Your task to perform on an android device: Open settings Image 0: 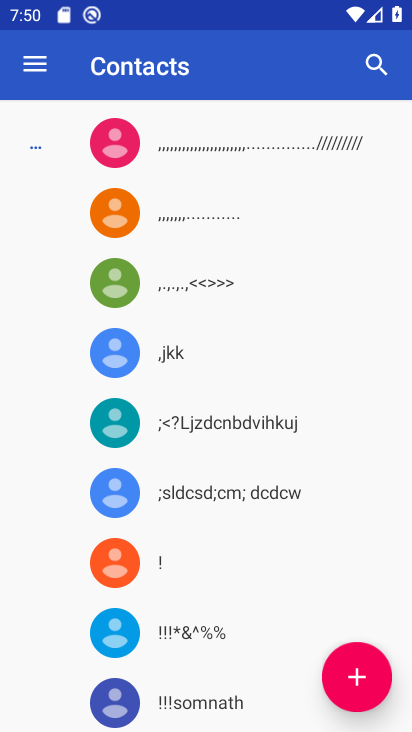
Step 0: drag from (312, 13) to (295, 592)
Your task to perform on an android device: Open settings Image 1: 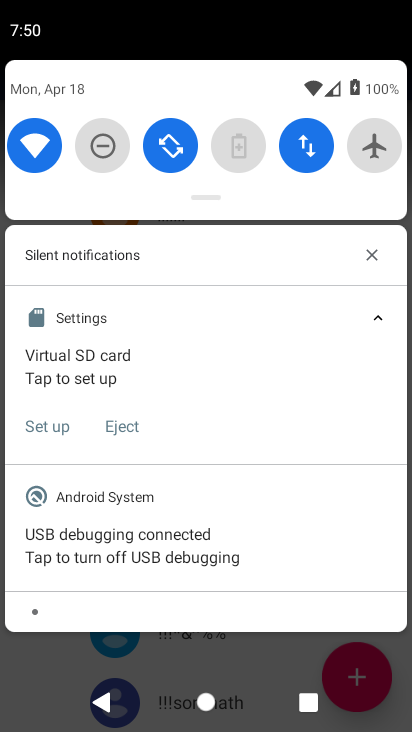
Step 1: drag from (227, 106) to (206, 568)
Your task to perform on an android device: Open settings Image 2: 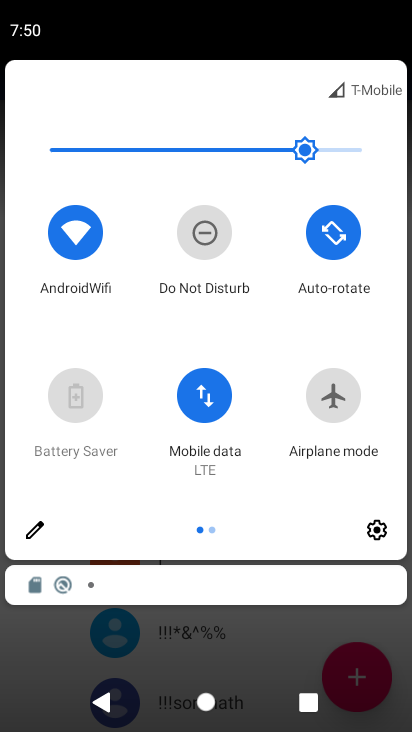
Step 2: click (389, 529)
Your task to perform on an android device: Open settings Image 3: 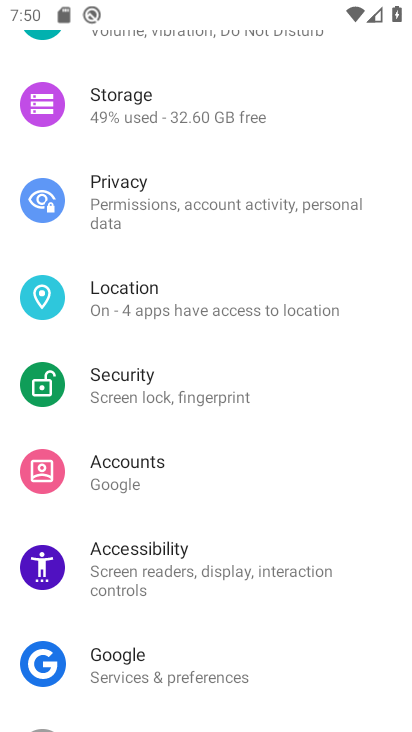
Step 3: task complete